Your task to perform on an android device: Go to Maps Image 0: 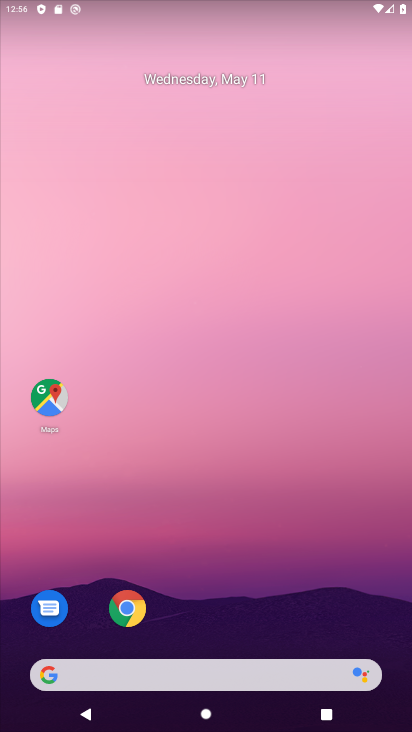
Step 0: click (51, 411)
Your task to perform on an android device: Go to Maps Image 1: 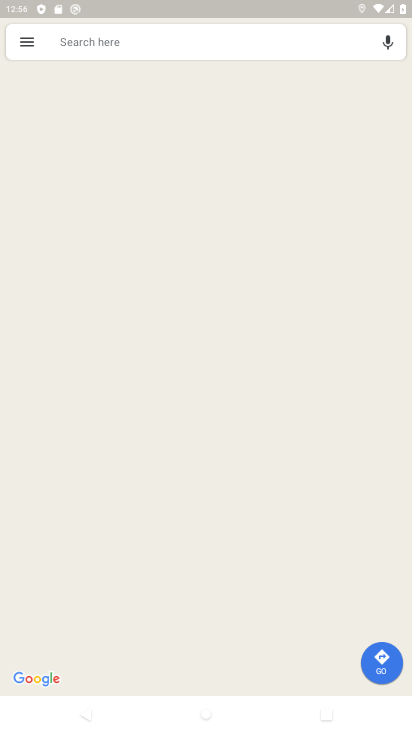
Step 1: task complete